Your task to perform on an android device: Search for seafood restaurants on Google Maps Image 0: 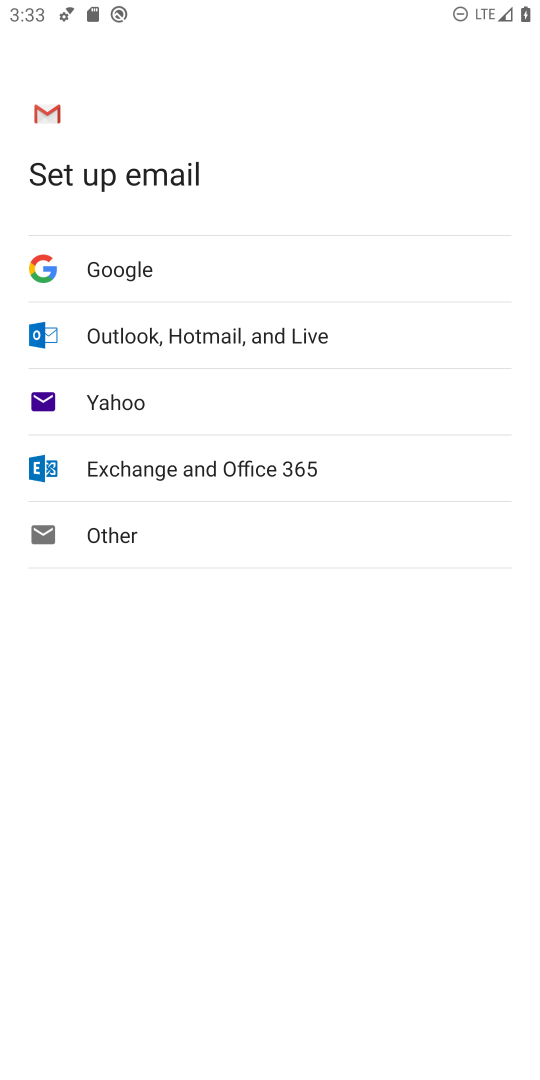
Step 0: press home button
Your task to perform on an android device: Search for seafood restaurants on Google Maps Image 1: 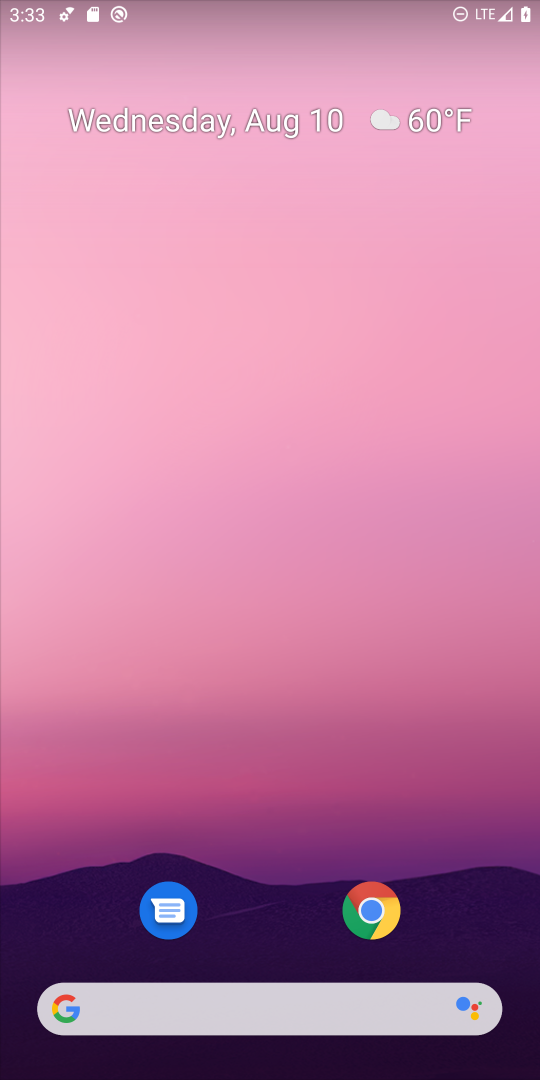
Step 1: drag from (254, 932) to (265, 52)
Your task to perform on an android device: Search for seafood restaurants on Google Maps Image 2: 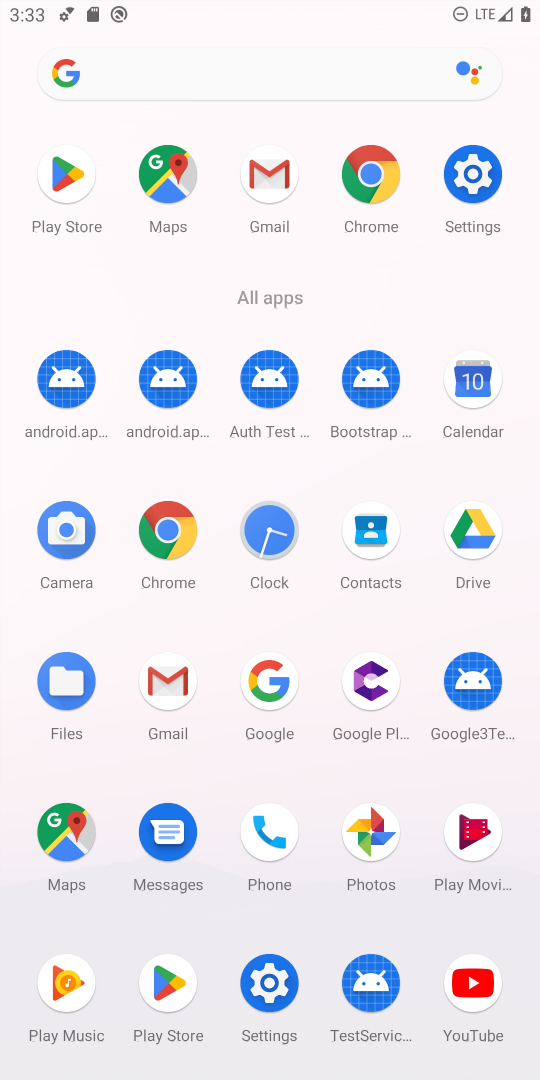
Step 2: click (162, 184)
Your task to perform on an android device: Search for seafood restaurants on Google Maps Image 3: 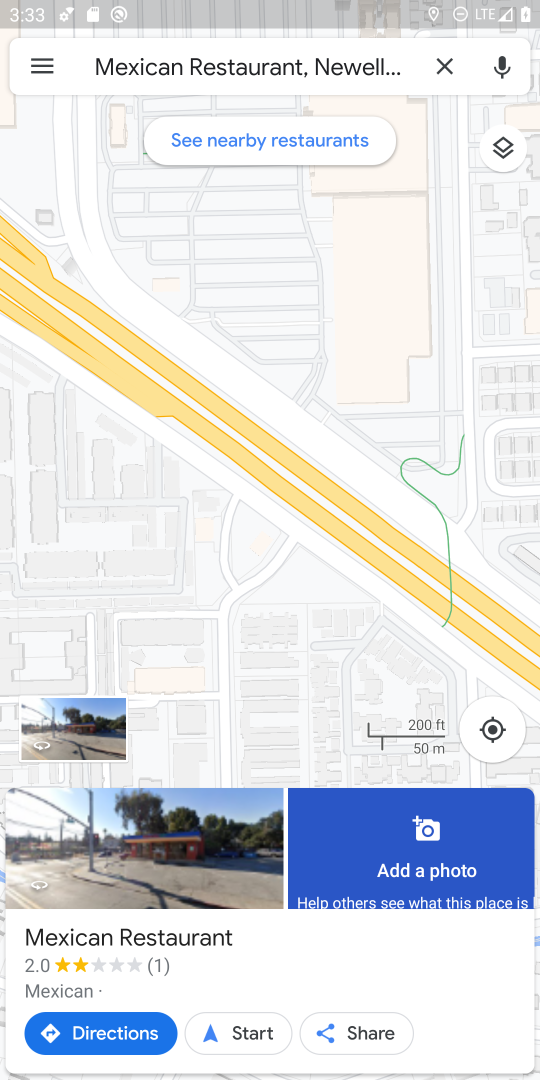
Step 3: click (445, 58)
Your task to perform on an android device: Search for seafood restaurants on Google Maps Image 4: 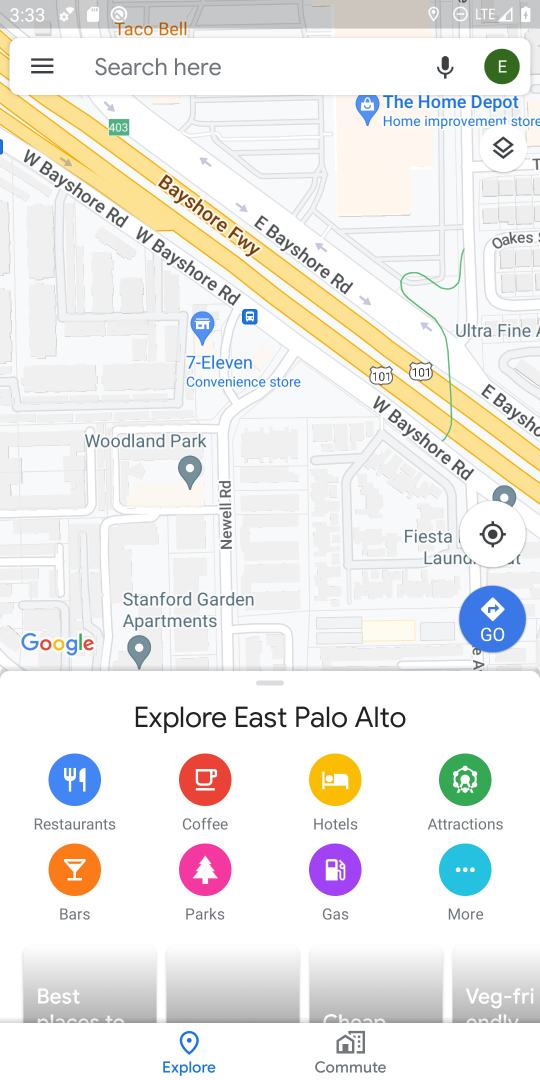
Step 4: click (264, 65)
Your task to perform on an android device: Search for seafood restaurants on Google Maps Image 5: 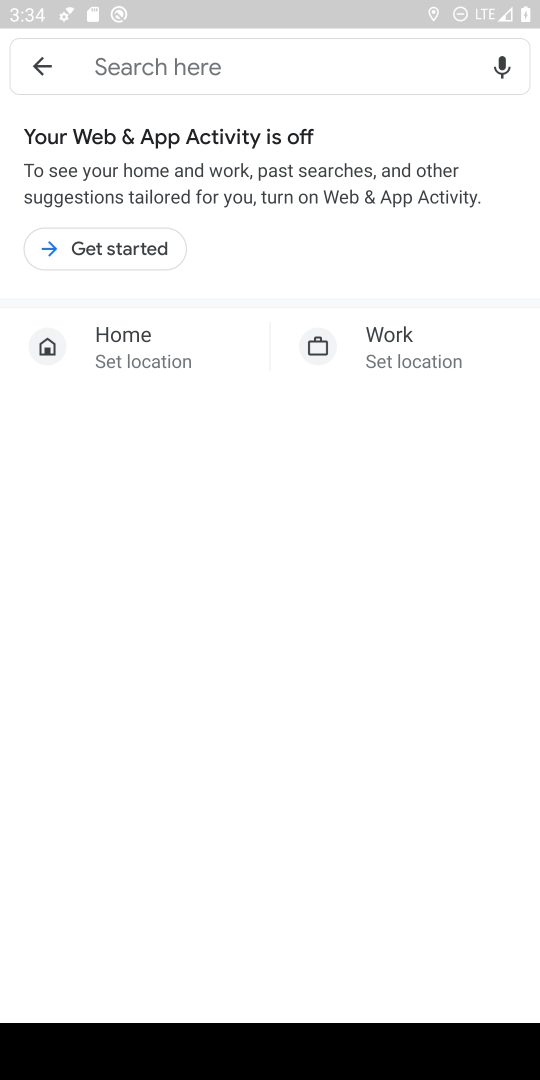
Step 5: type "seafood restaurants"
Your task to perform on an android device: Search for seafood restaurants on Google Maps Image 6: 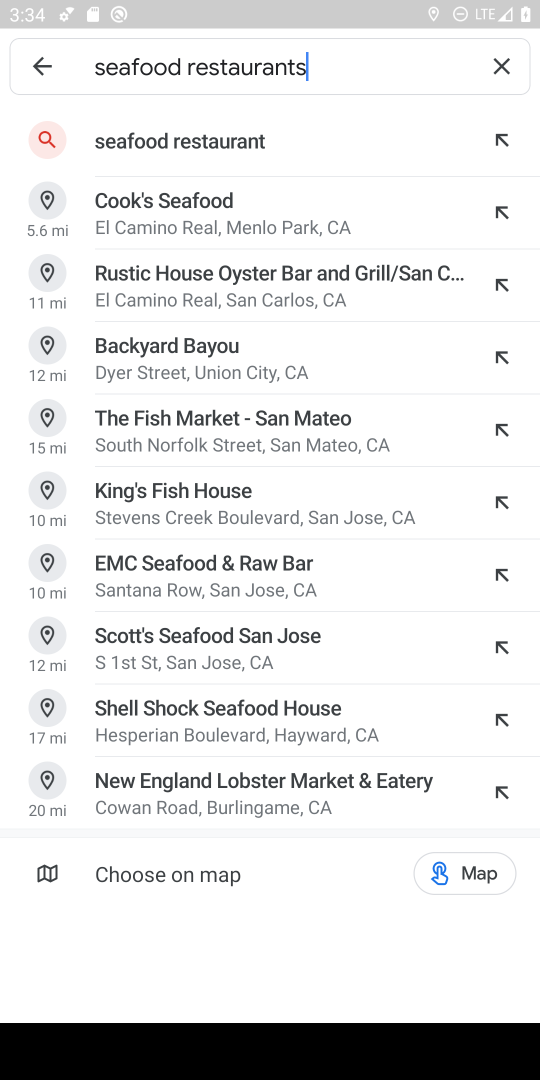
Step 6: click (303, 147)
Your task to perform on an android device: Search for seafood restaurants on Google Maps Image 7: 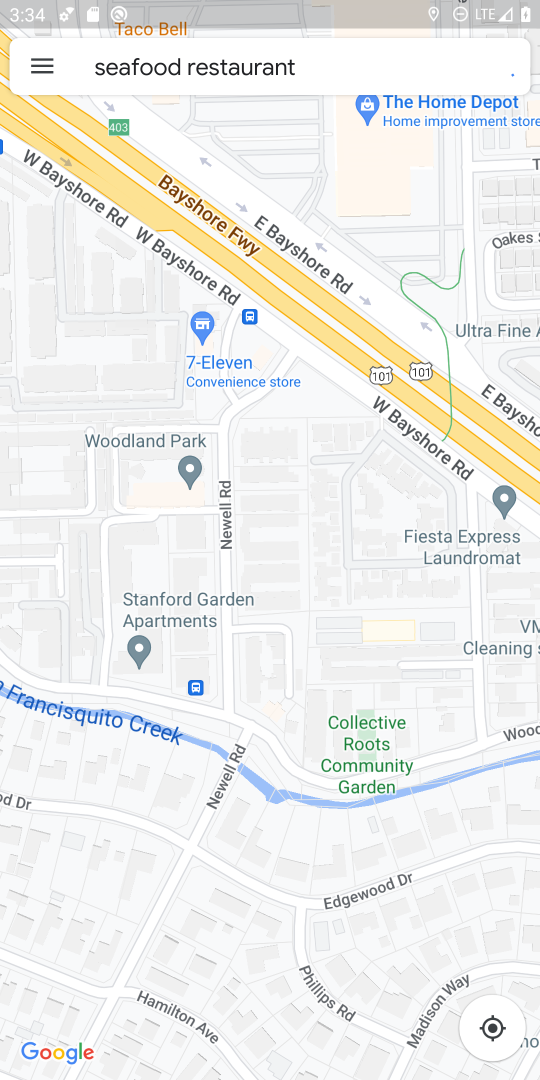
Step 7: task complete